Your task to perform on an android device: turn vacation reply on in the gmail app Image 0: 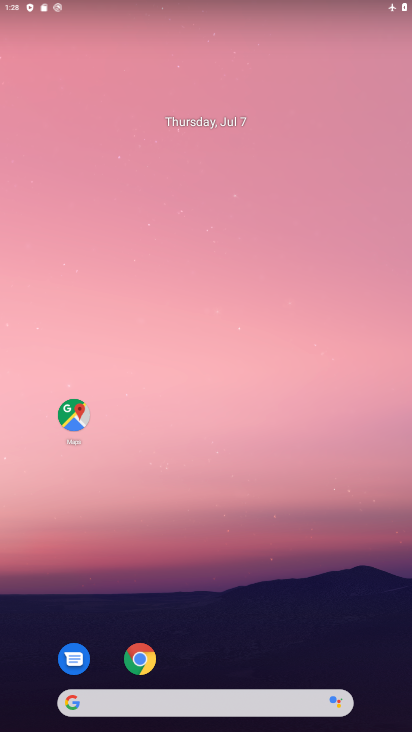
Step 0: drag from (233, 625) to (263, 188)
Your task to perform on an android device: turn vacation reply on in the gmail app Image 1: 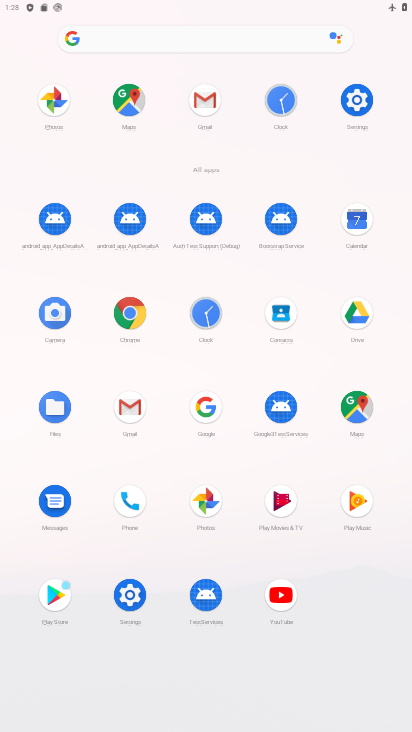
Step 1: click (213, 113)
Your task to perform on an android device: turn vacation reply on in the gmail app Image 2: 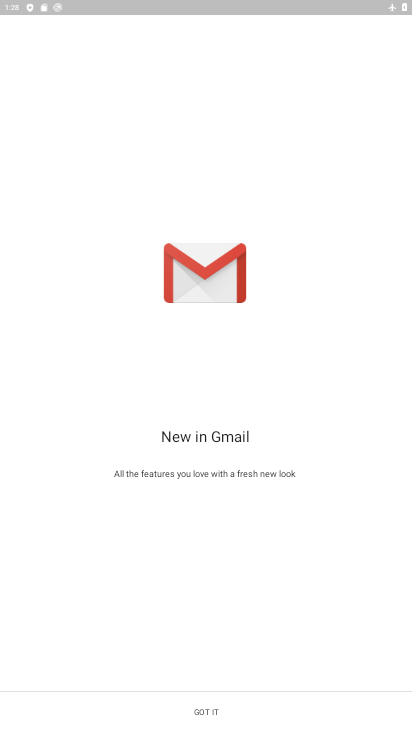
Step 2: click (225, 710)
Your task to perform on an android device: turn vacation reply on in the gmail app Image 3: 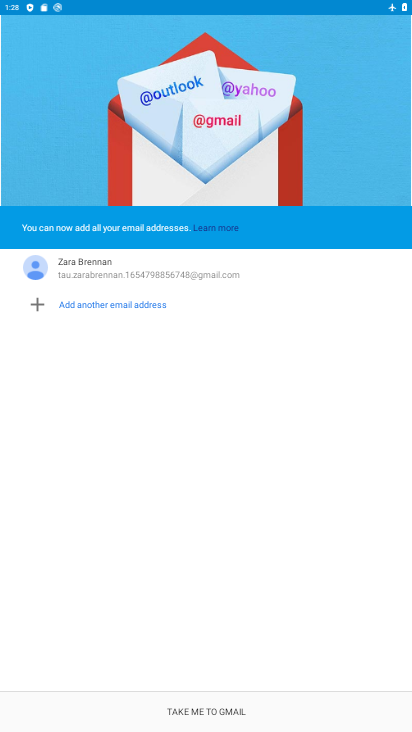
Step 3: click (234, 715)
Your task to perform on an android device: turn vacation reply on in the gmail app Image 4: 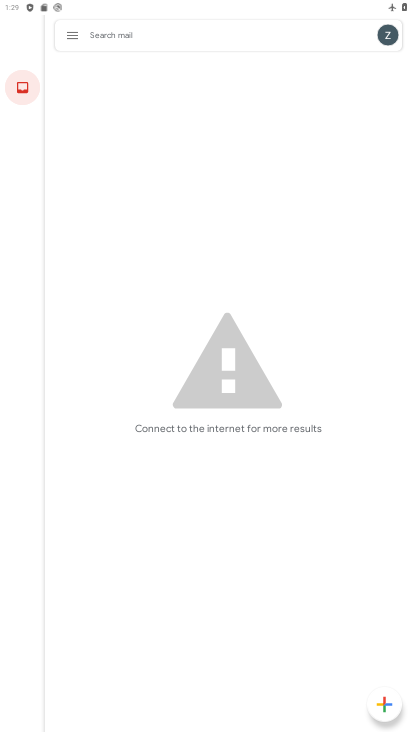
Step 4: click (72, 37)
Your task to perform on an android device: turn vacation reply on in the gmail app Image 5: 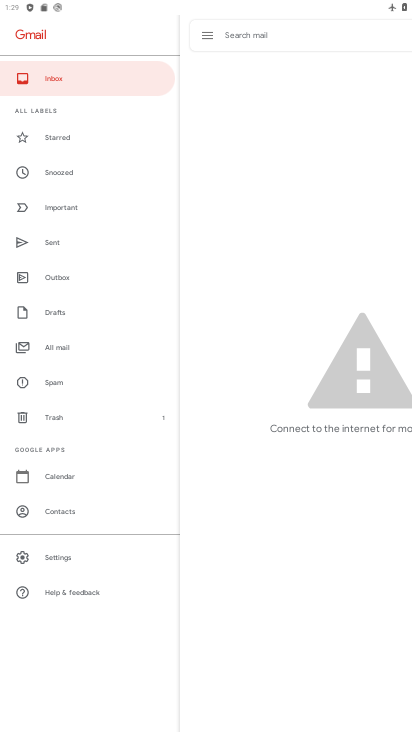
Step 5: click (41, 552)
Your task to perform on an android device: turn vacation reply on in the gmail app Image 6: 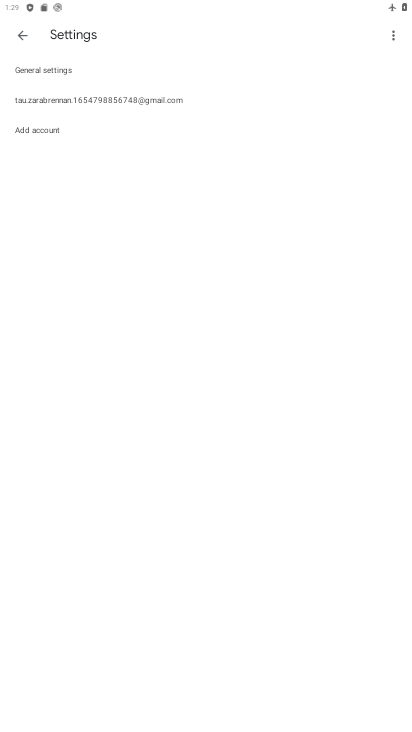
Step 6: click (173, 105)
Your task to perform on an android device: turn vacation reply on in the gmail app Image 7: 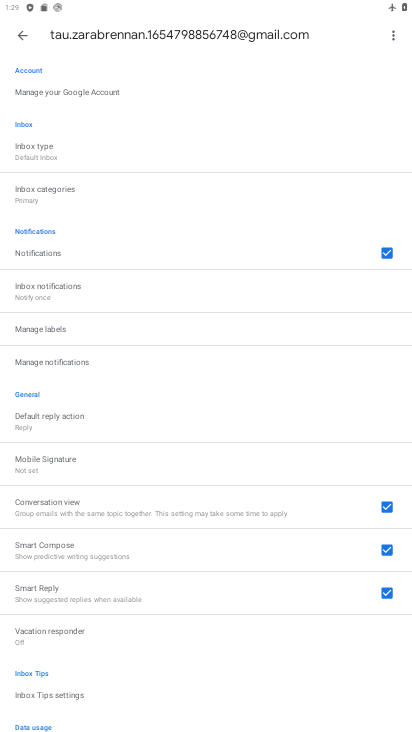
Step 7: drag from (196, 580) to (215, 377)
Your task to perform on an android device: turn vacation reply on in the gmail app Image 8: 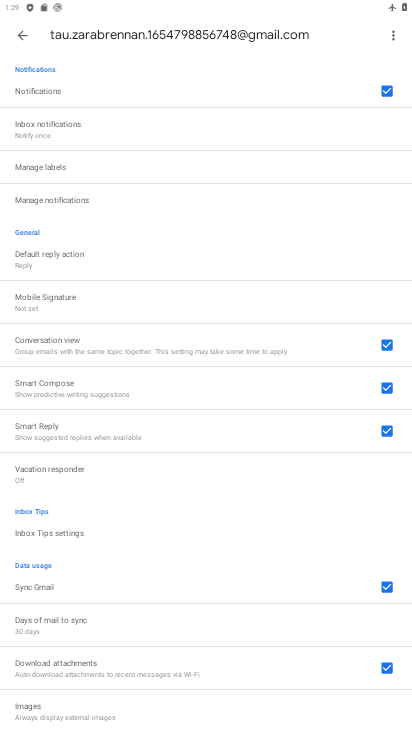
Step 8: click (139, 484)
Your task to perform on an android device: turn vacation reply on in the gmail app Image 9: 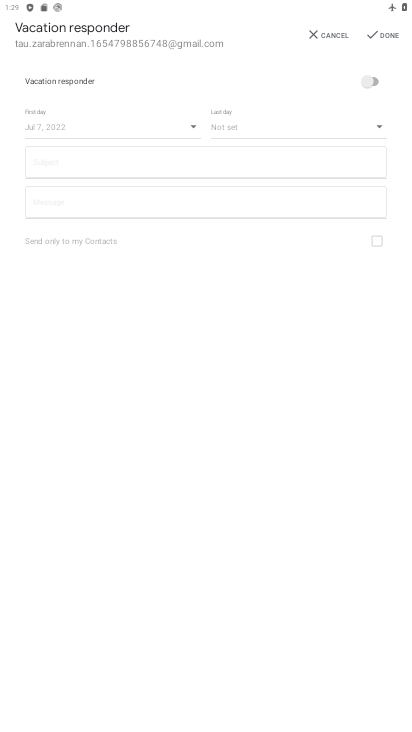
Step 9: click (375, 78)
Your task to perform on an android device: turn vacation reply on in the gmail app Image 10: 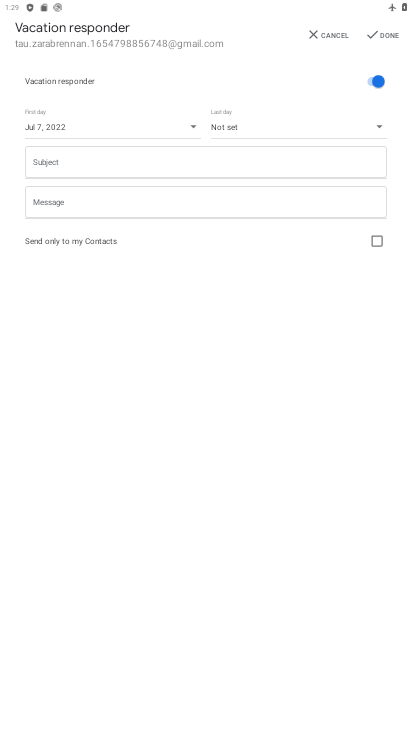
Step 10: click (390, 38)
Your task to perform on an android device: turn vacation reply on in the gmail app Image 11: 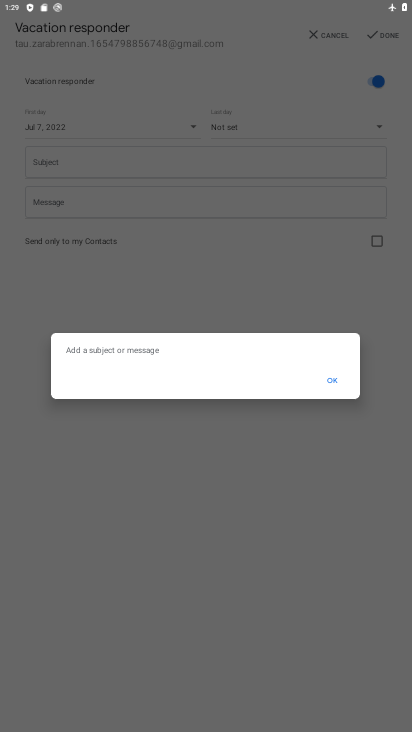
Step 11: click (328, 380)
Your task to perform on an android device: turn vacation reply on in the gmail app Image 12: 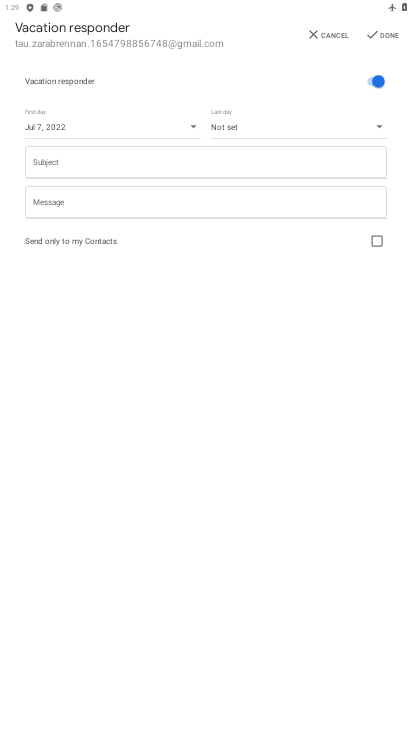
Step 12: task complete